Your task to perform on an android device: delete a single message in the gmail app Image 0: 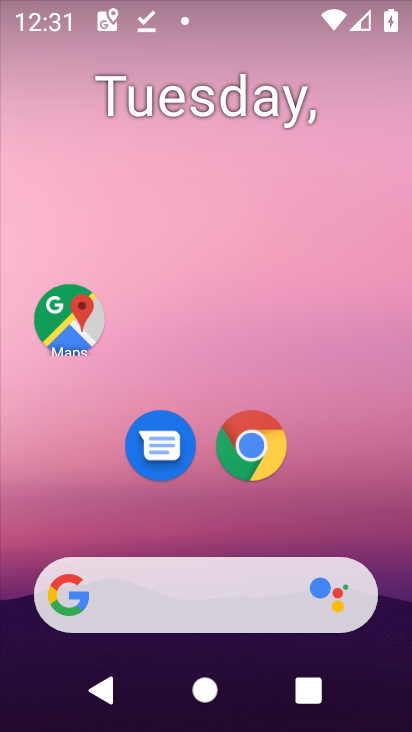
Step 0: drag from (330, 482) to (237, 5)
Your task to perform on an android device: delete a single message in the gmail app Image 1: 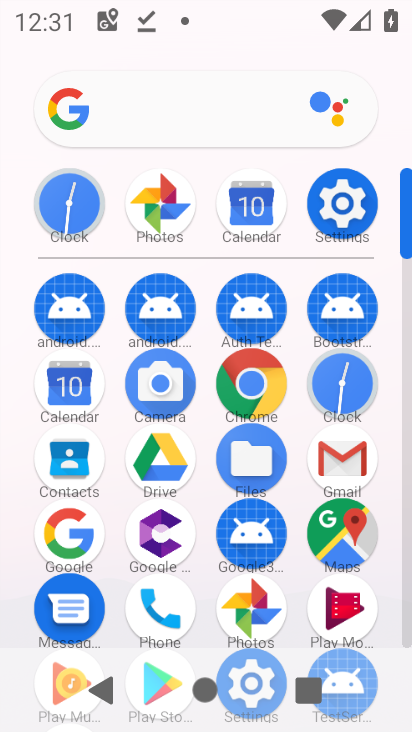
Step 1: click (331, 455)
Your task to perform on an android device: delete a single message in the gmail app Image 2: 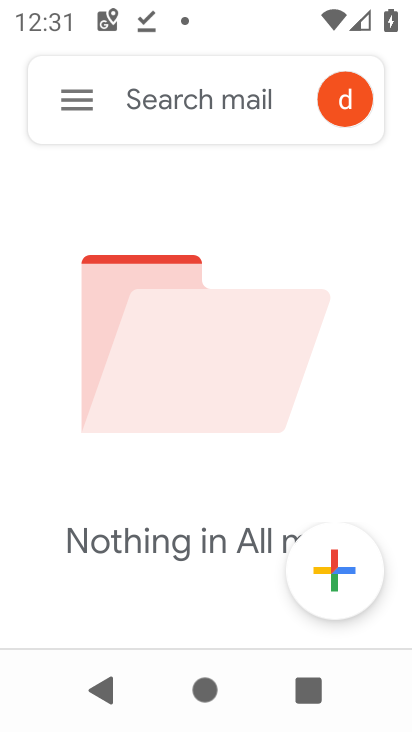
Step 2: click (77, 99)
Your task to perform on an android device: delete a single message in the gmail app Image 3: 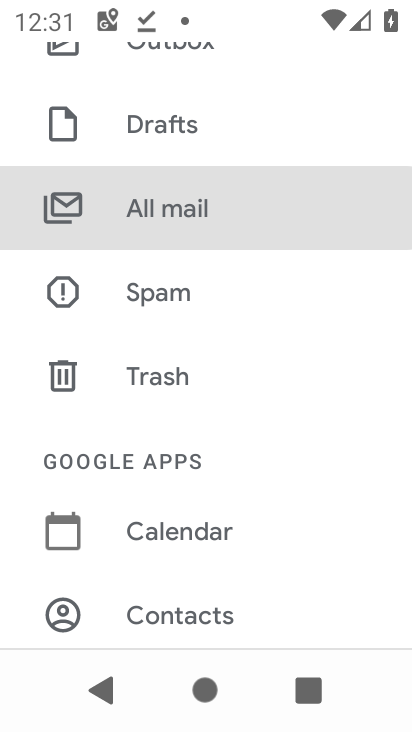
Step 3: click (160, 233)
Your task to perform on an android device: delete a single message in the gmail app Image 4: 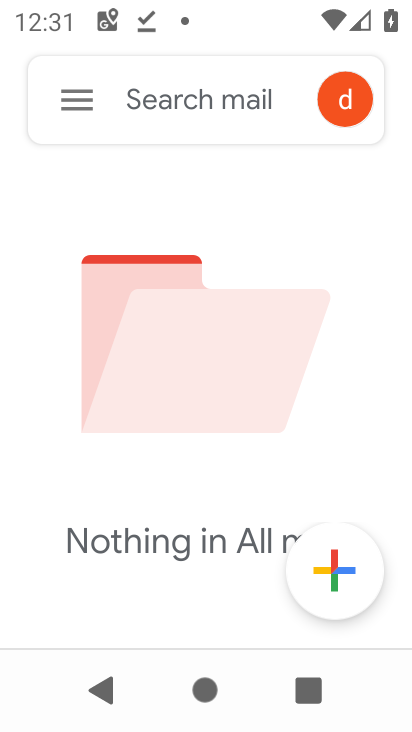
Step 4: task complete